Your task to perform on an android device: What's on my calendar today? Image 0: 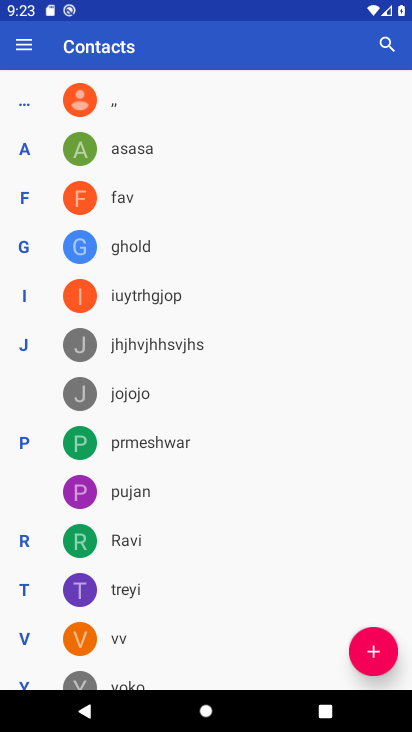
Step 0: press home button
Your task to perform on an android device: What's on my calendar today? Image 1: 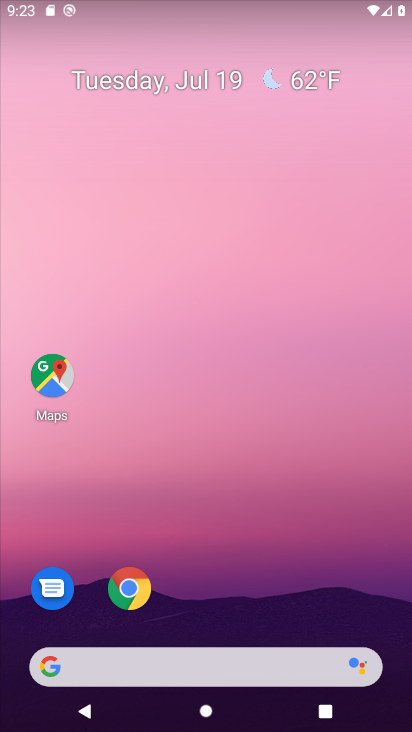
Step 1: drag from (212, 529) to (209, 166)
Your task to perform on an android device: What's on my calendar today? Image 2: 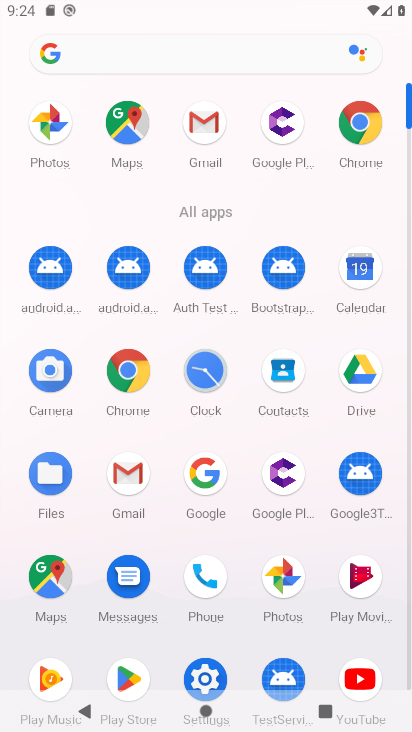
Step 2: click (356, 286)
Your task to perform on an android device: What's on my calendar today? Image 3: 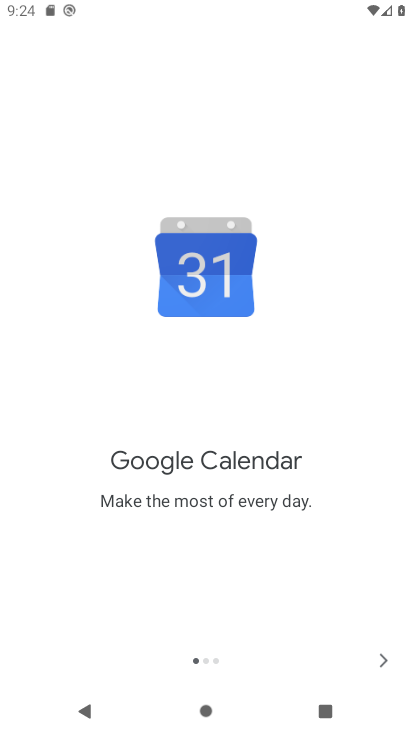
Step 3: click (379, 660)
Your task to perform on an android device: What's on my calendar today? Image 4: 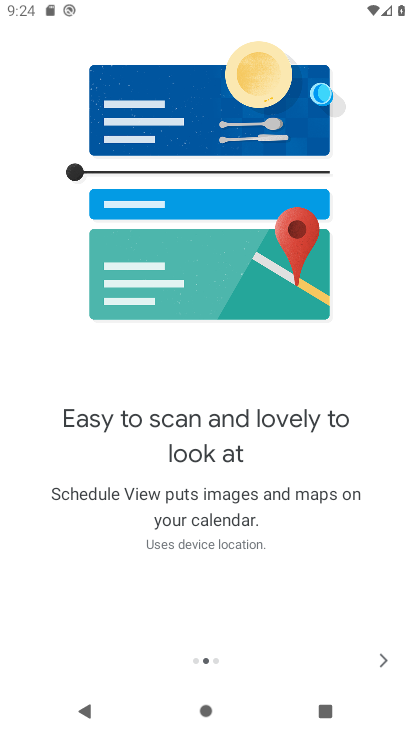
Step 4: click (379, 660)
Your task to perform on an android device: What's on my calendar today? Image 5: 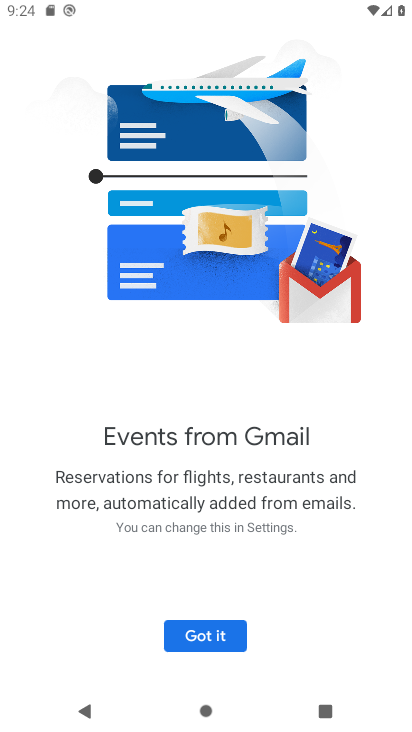
Step 5: click (199, 642)
Your task to perform on an android device: What's on my calendar today? Image 6: 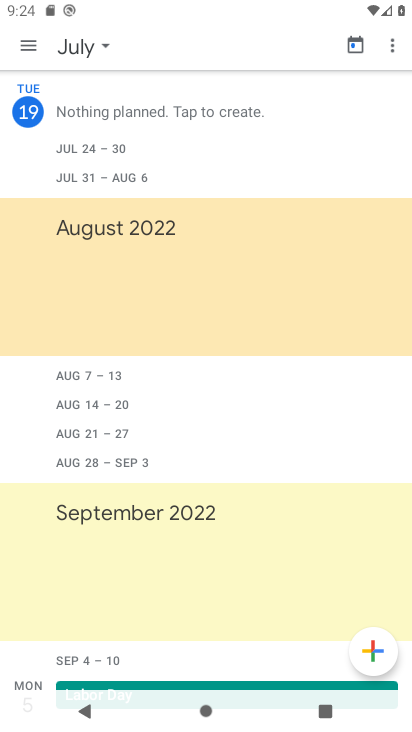
Step 6: task complete